Your task to perform on an android device: see tabs open on other devices in the chrome app Image 0: 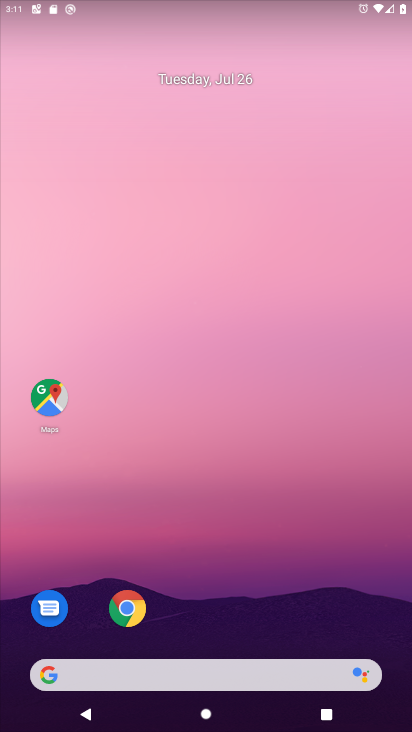
Step 0: click (119, 611)
Your task to perform on an android device: see tabs open on other devices in the chrome app Image 1: 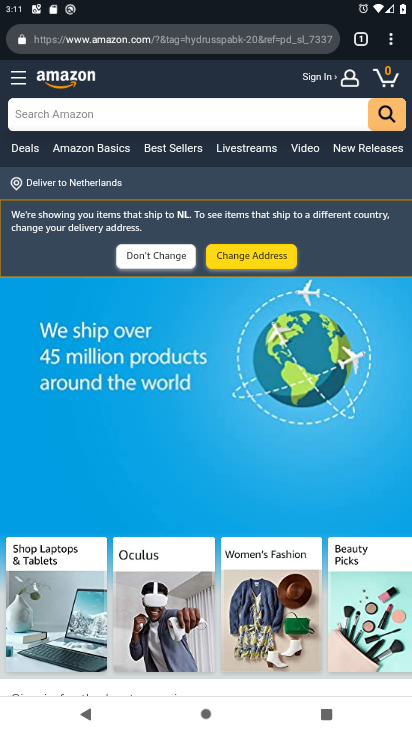
Step 1: click (384, 38)
Your task to perform on an android device: see tabs open on other devices in the chrome app Image 2: 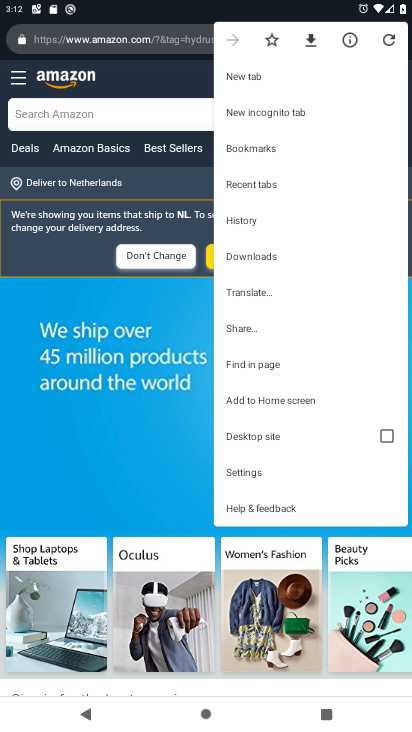
Step 2: click (265, 184)
Your task to perform on an android device: see tabs open on other devices in the chrome app Image 3: 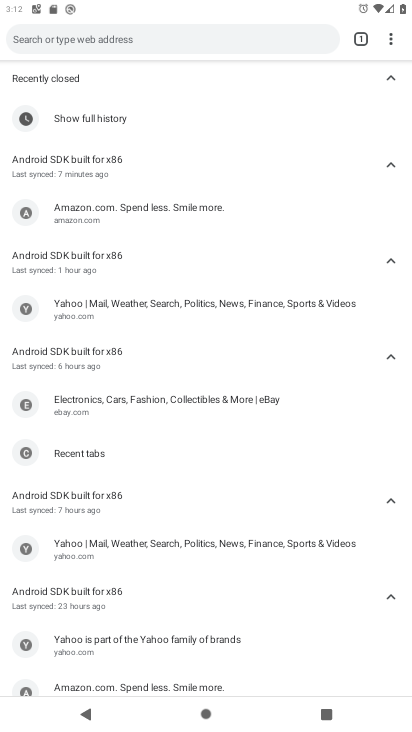
Step 3: task complete